Your task to perform on an android device: turn off airplane mode Image 0: 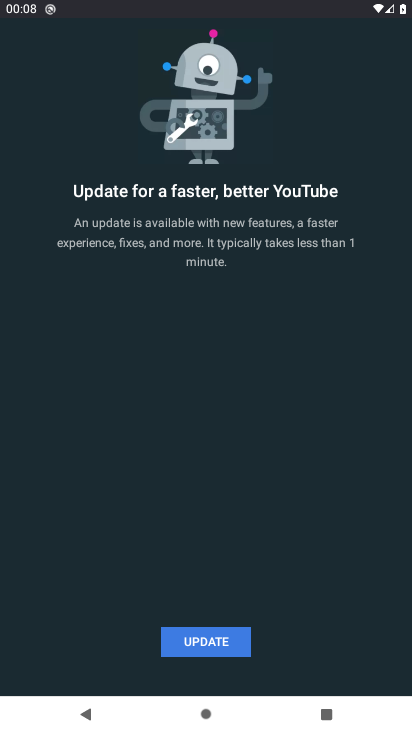
Step 0: press home button
Your task to perform on an android device: turn off airplane mode Image 1: 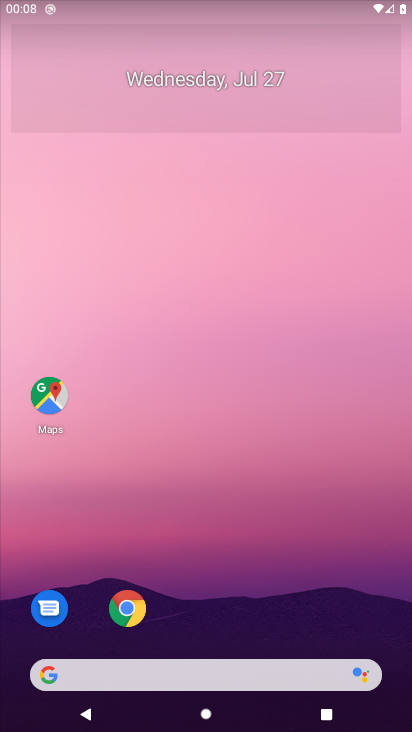
Step 1: task complete